Your task to perform on an android device: set an alarm Image 0: 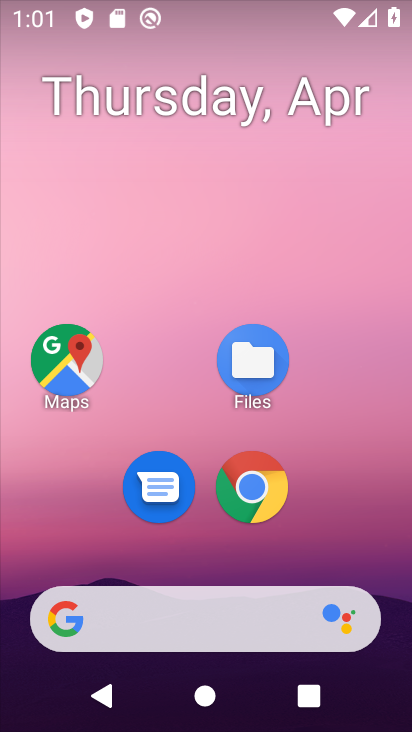
Step 0: drag from (387, 539) to (378, 168)
Your task to perform on an android device: set an alarm Image 1: 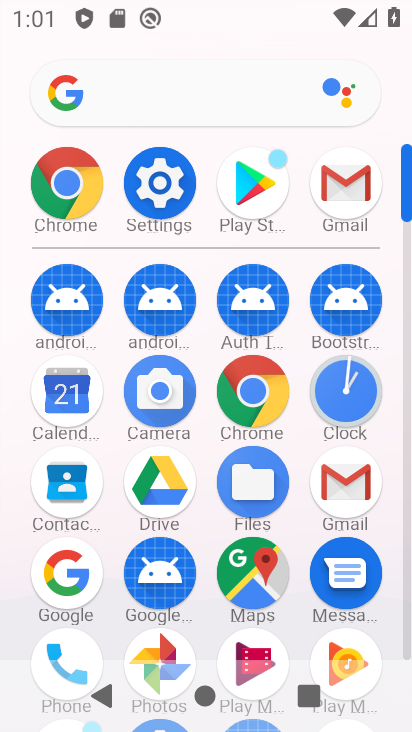
Step 1: drag from (378, 524) to (387, 300)
Your task to perform on an android device: set an alarm Image 2: 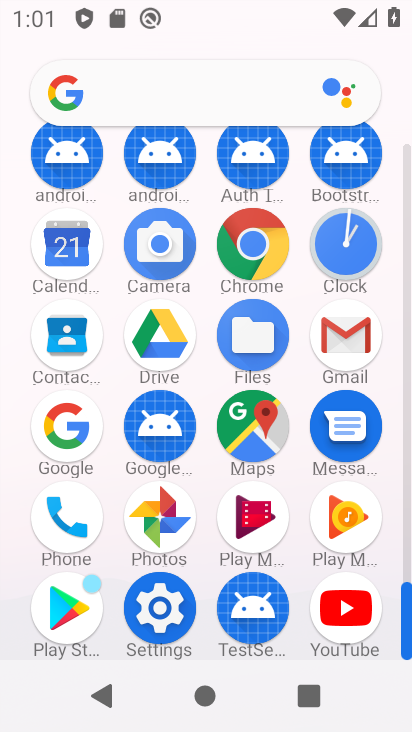
Step 2: click (364, 259)
Your task to perform on an android device: set an alarm Image 3: 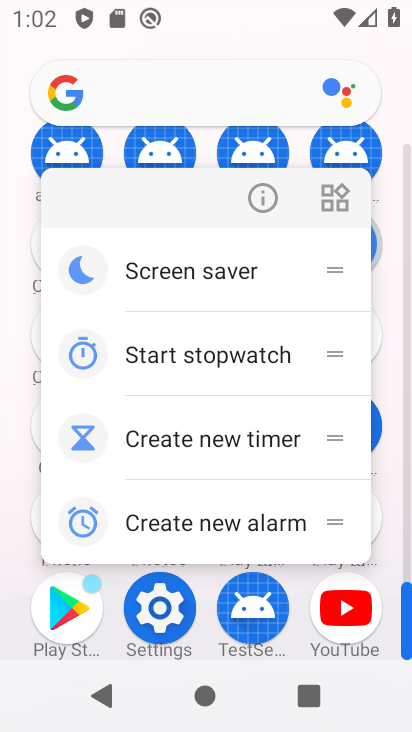
Step 3: click (374, 252)
Your task to perform on an android device: set an alarm Image 4: 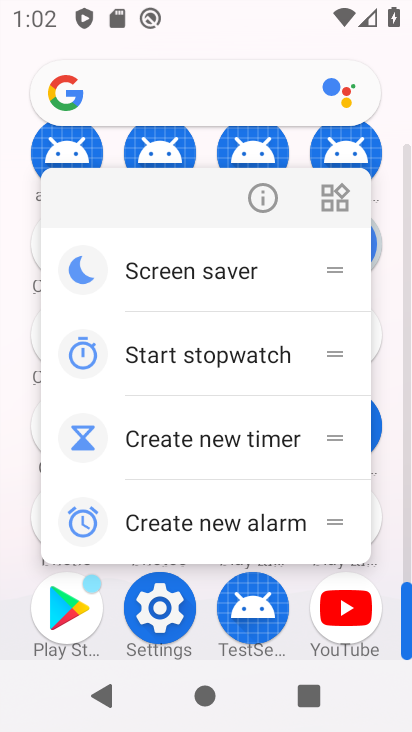
Step 4: click (374, 256)
Your task to perform on an android device: set an alarm Image 5: 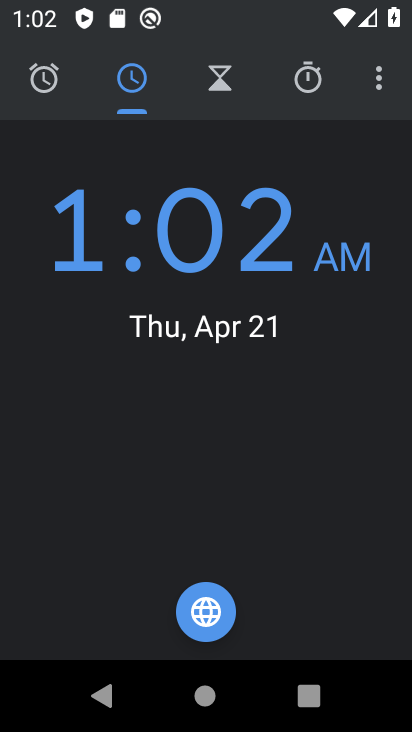
Step 5: click (45, 82)
Your task to perform on an android device: set an alarm Image 6: 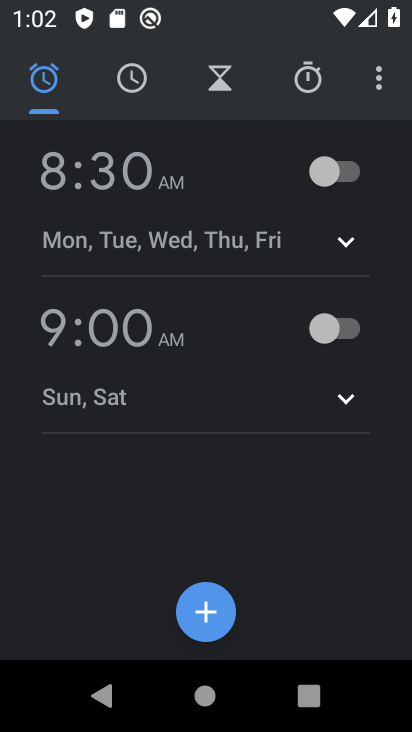
Step 6: click (208, 611)
Your task to perform on an android device: set an alarm Image 7: 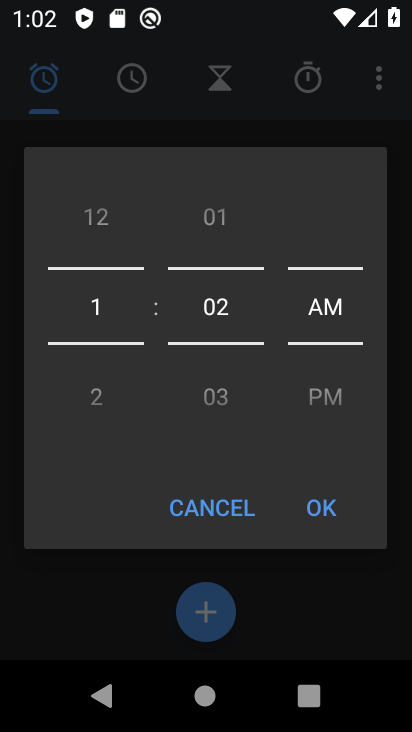
Step 7: click (314, 512)
Your task to perform on an android device: set an alarm Image 8: 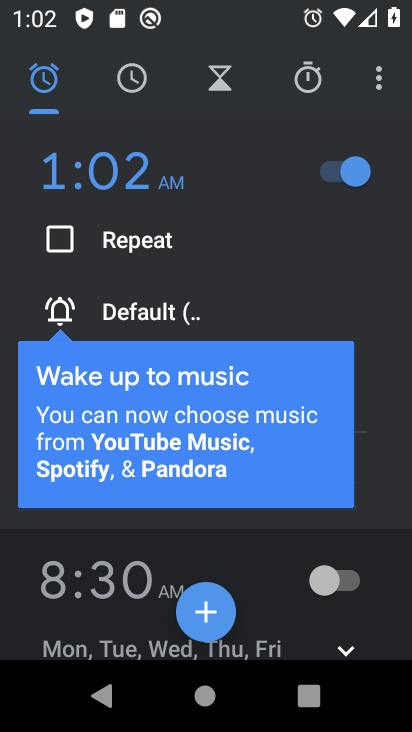
Step 8: task complete